Your task to perform on an android device: empty trash in the gmail app Image 0: 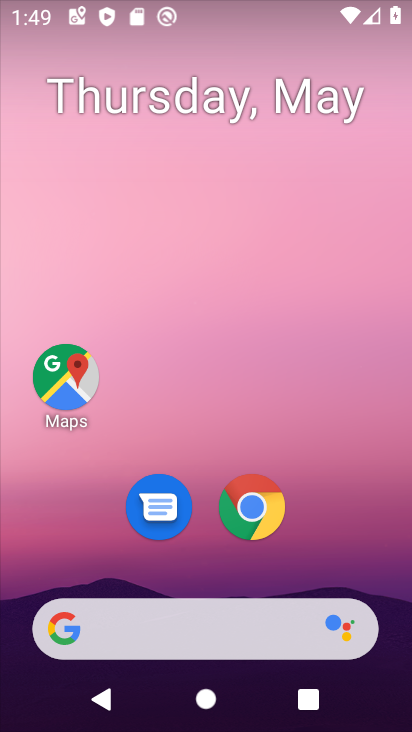
Step 0: drag from (287, 603) to (330, 20)
Your task to perform on an android device: empty trash in the gmail app Image 1: 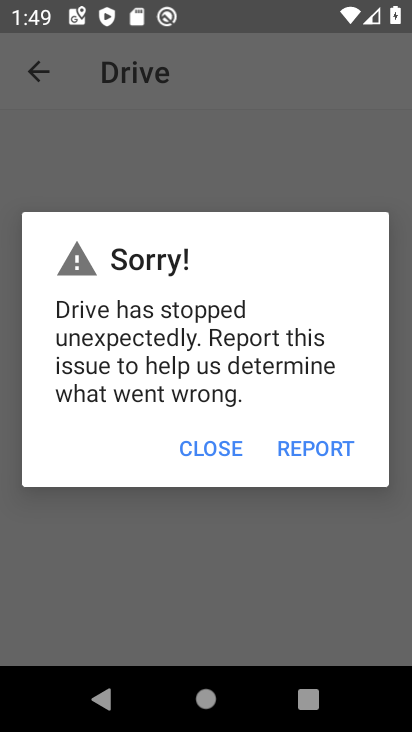
Step 1: press home button
Your task to perform on an android device: empty trash in the gmail app Image 2: 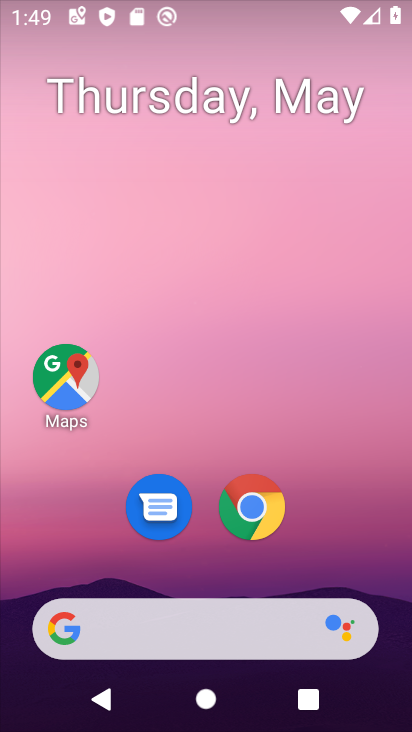
Step 2: drag from (156, 680) to (336, 137)
Your task to perform on an android device: empty trash in the gmail app Image 3: 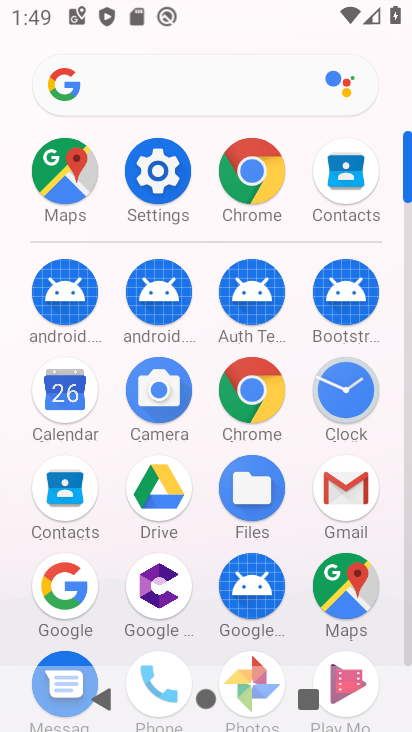
Step 3: click (360, 497)
Your task to perform on an android device: empty trash in the gmail app Image 4: 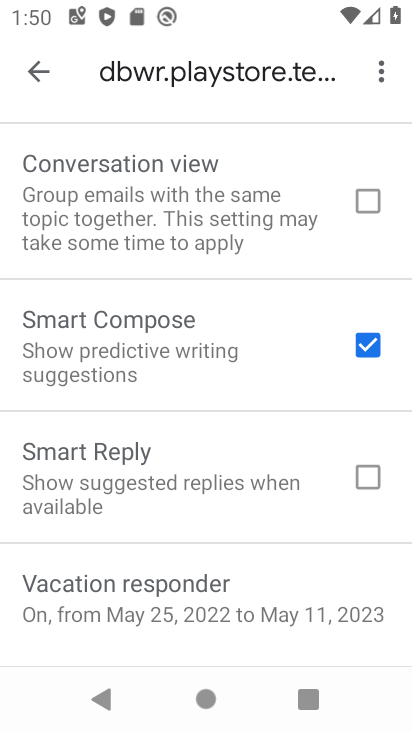
Step 4: drag from (244, 296) to (293, 606)
Your task to perform on an android device: empty trash in the gmail app Image 5: 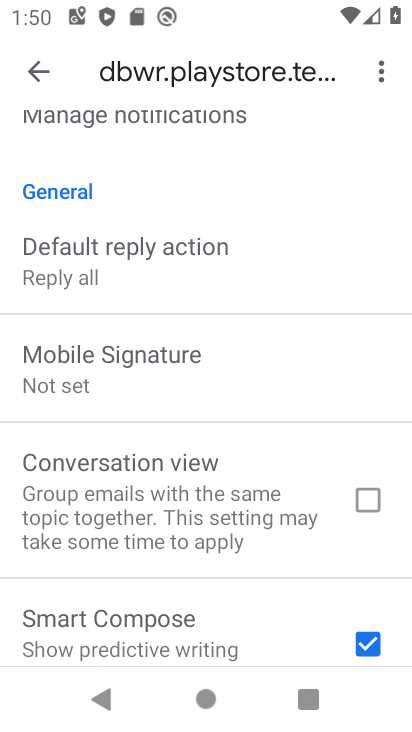
Step 5: press back button
Your task to perform on an android device: empty trash in the gmail app Image 6: 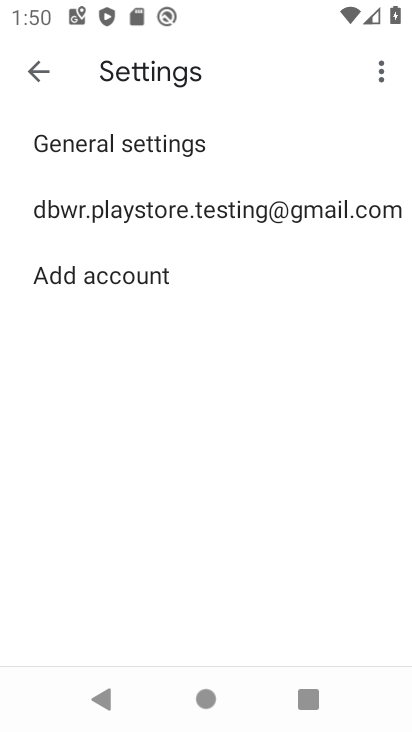
Step 6: press back button
Your task to perform on an android device: empty trash in the gmail app Image 7: 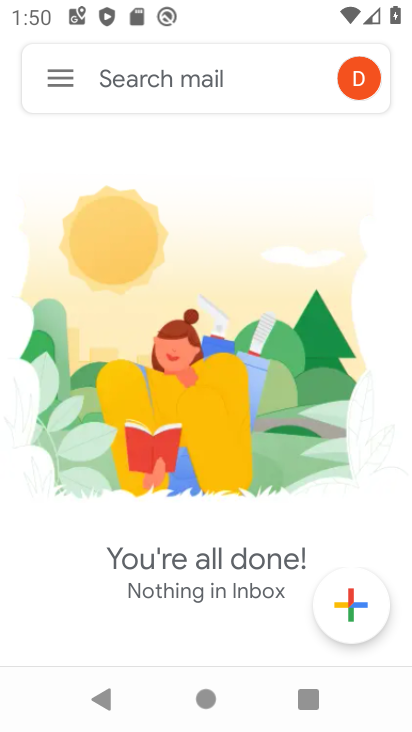
Step 7: click (65, 60)
Your task to perform on an android device: empty trash in the gmail app Image 8: 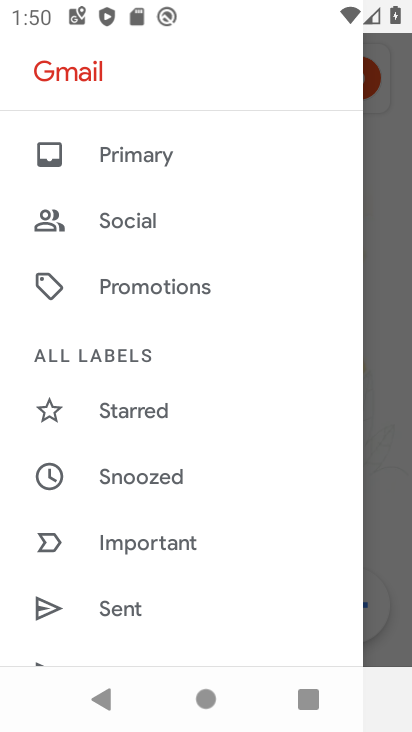
Step 8: drag from (113, 554) to (117, 46)
Your task to perform on an android device: empty trash in the gmail app Image 9: 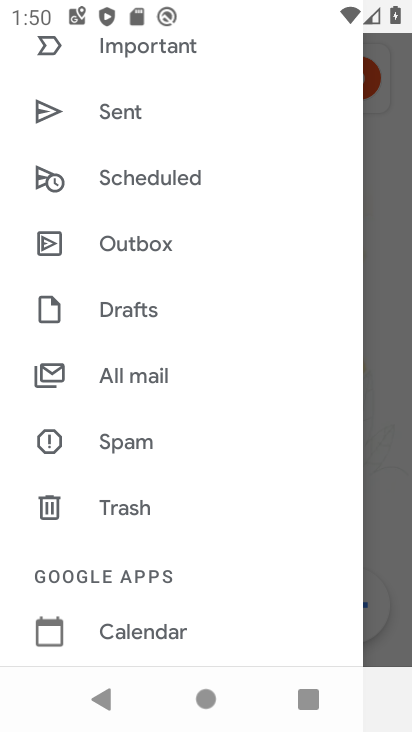
Step 9: click (155, 493)
Your task to perform on an android device: empty trash in the gmail app Image 10: 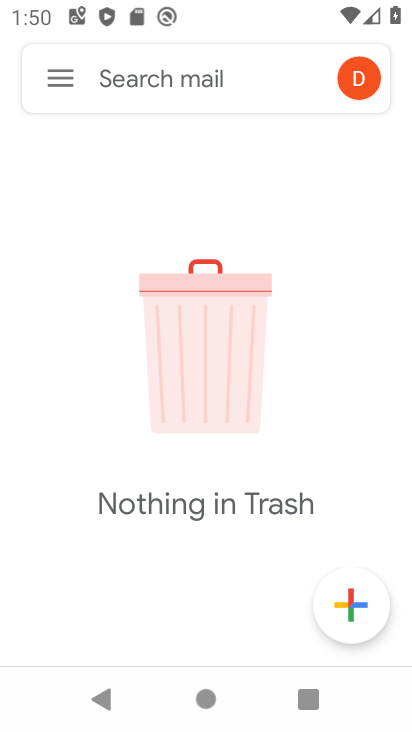
Step 10: task complete